Your task to perform on an android device: find which apps use the phone's location Image 0: 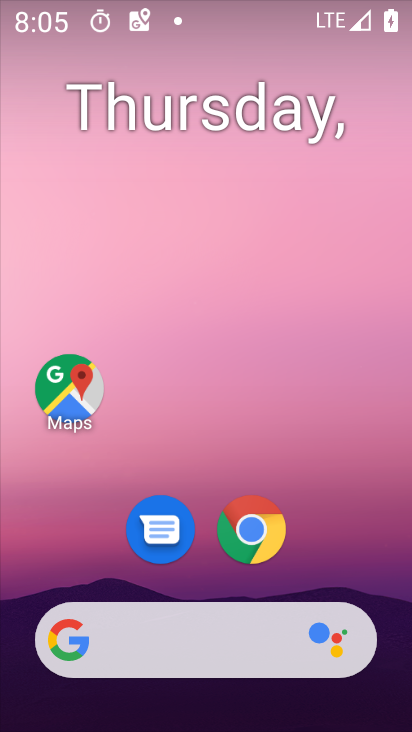
Step 0: drag from (378, 571) to (373, 176)
Your task to perform on an android device: find which apps use the phone's location Image 1: 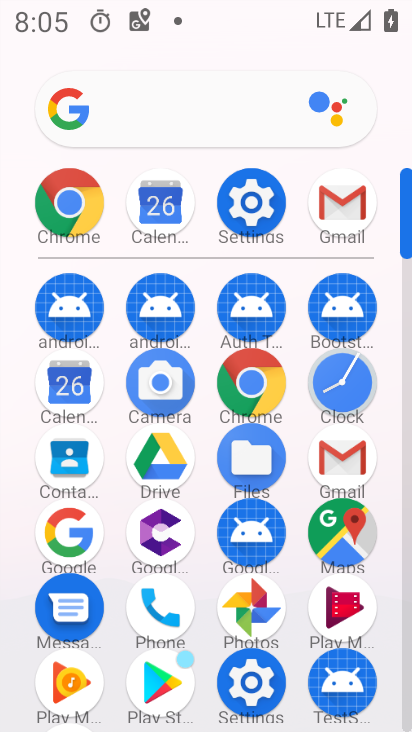
Step 1: click (255, 216)
Your task to perform on an android device: find which apps use the phone's location Image 2: 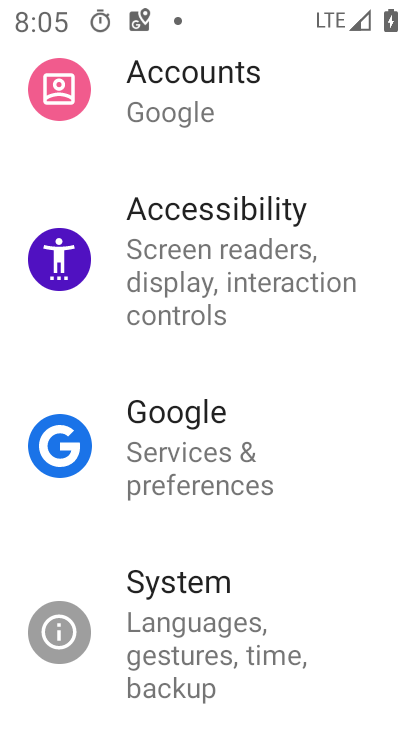
Step 2: drag from (373, 175) to (373, 267)
Your task to perform on an android device: find which apps use the phone's location Image 3: 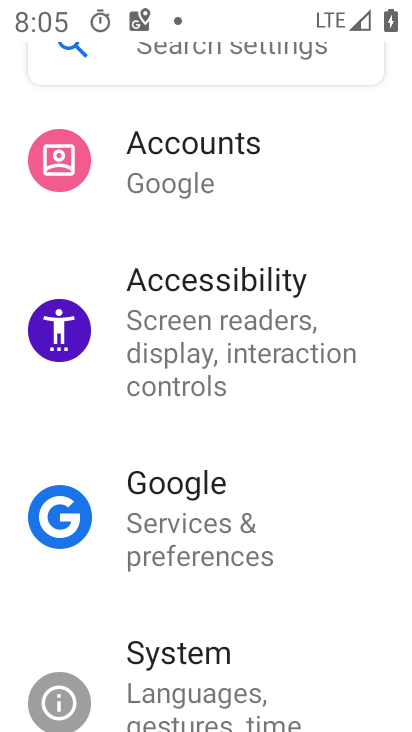
Step 3: drag from (373, 185) to (374, 306)
Your task to perform on an android device: find which apps use the phone's location Image 4: 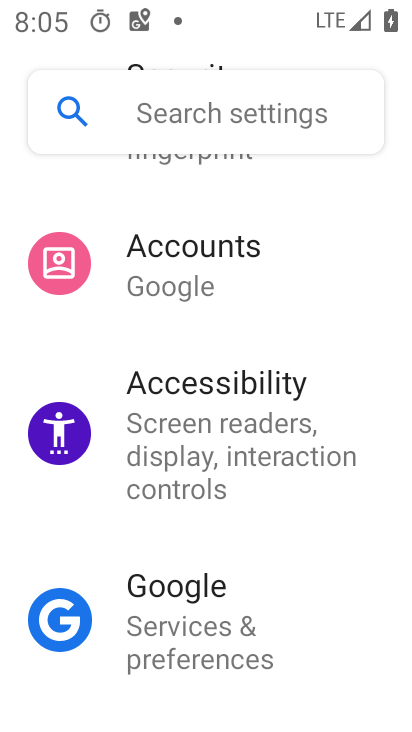
Step 4: drag from (355, 190) to (358, 302)
Your task to perform on an android device: find which apps use the phone's location Image 5: 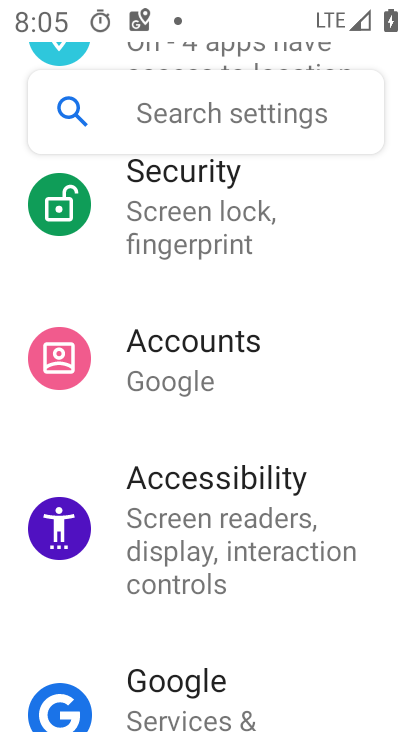
Step 5: drag from (347, 174) to (347, 294)
Your task to perform on an android device: find which apps use the phone's location Image 6: 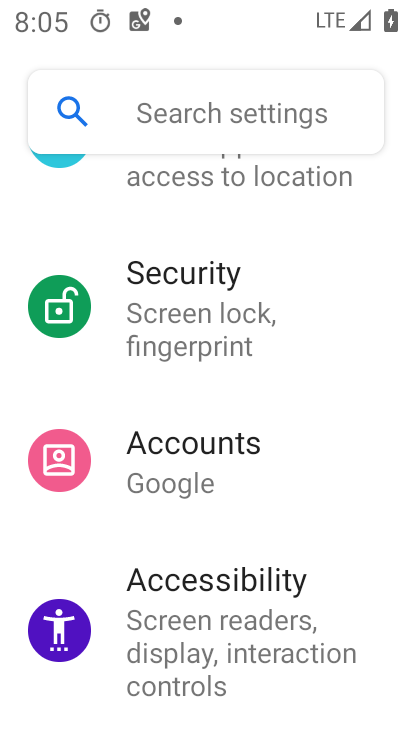
Step 6: drag from (367, 166) to (365, 283)
Your task to perform on an android device: find which apps use the phone's location Image 7: 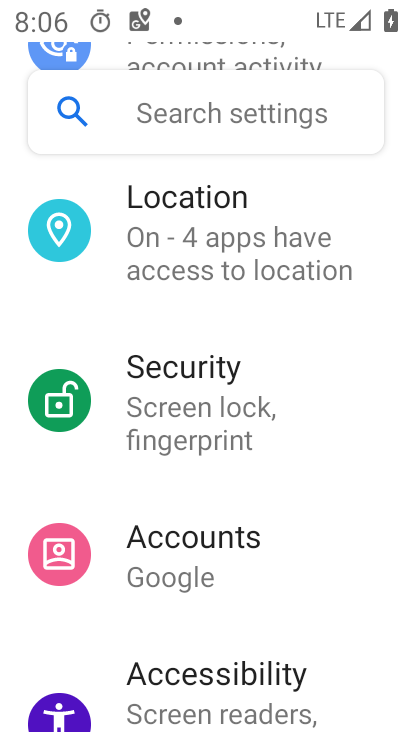
Step 7: drag from (366, 186) to (371, 278)
Your task to perform on an android device: find which apps use the phone's location Image 8: 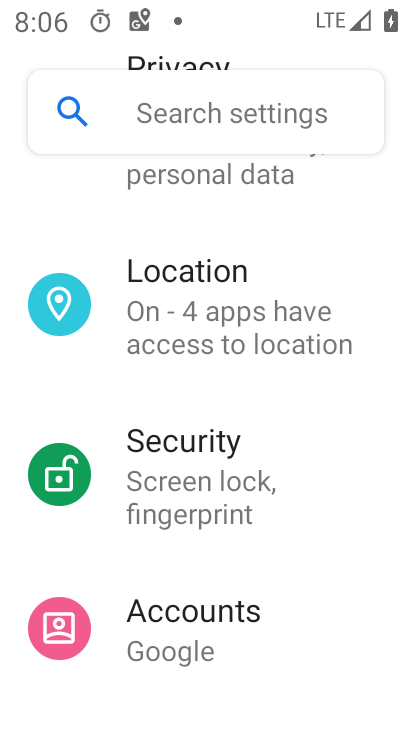
Step 8: drag from (367, 213) to (355, 334)
Your task to perform on an android device: find which apps use the phone's location Image 9: 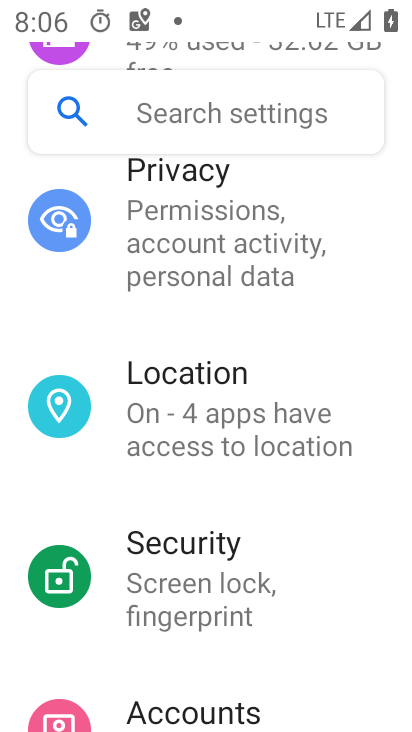
Step 9: click (321, 408)
Your task to perform on an android device: find which apps use the phone's location Image 10: 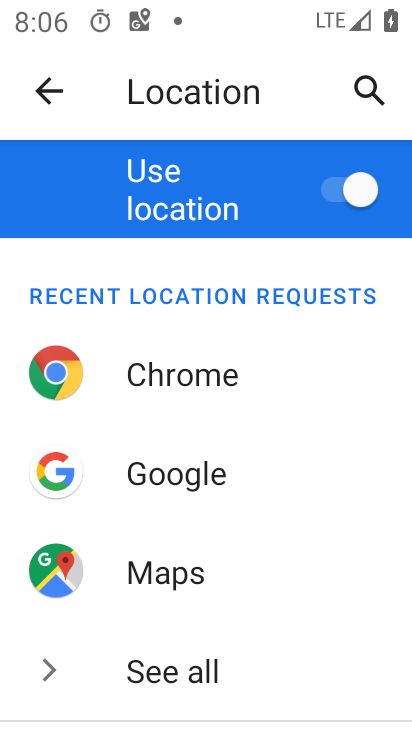
Step 10: drag from (316, 438) to (318, 337)
Your task to perform on an android device: find which apps use the phone's location Image 11: 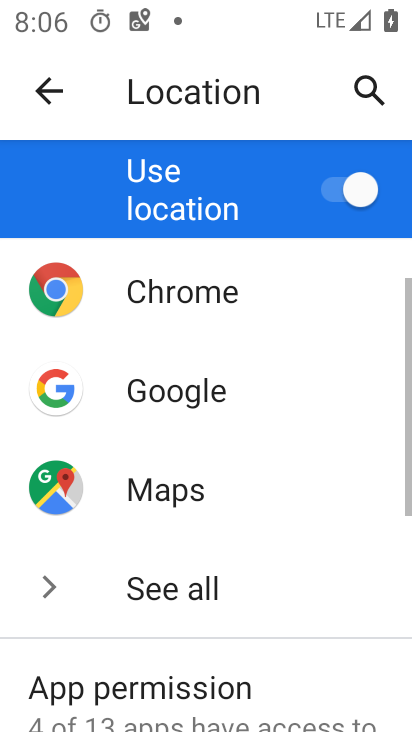
Step 11: drag from (307, 486) to (323, 327)
Your task to perform on an android device: find which apps use the phone's location Image 12: 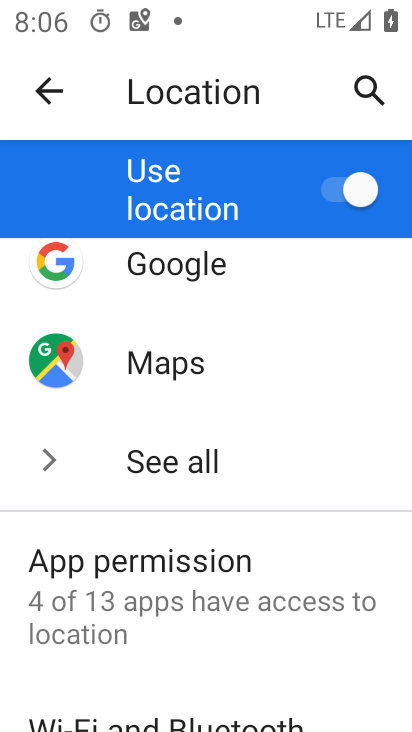
Step 12: drag from (306, 539) to (306, 417)
Your task to perform on an android device: find which apps use the phone's location Image 13: 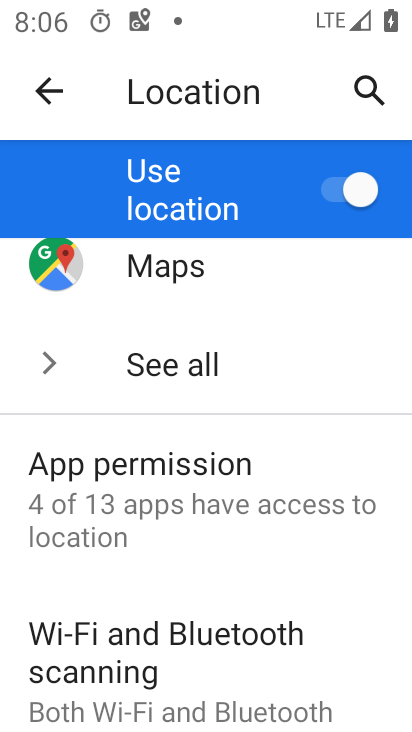
Step 13: drag from (298, 561) to (296, 328)
Your task to perform on an android device: find which apps use the phone's location Image 14: 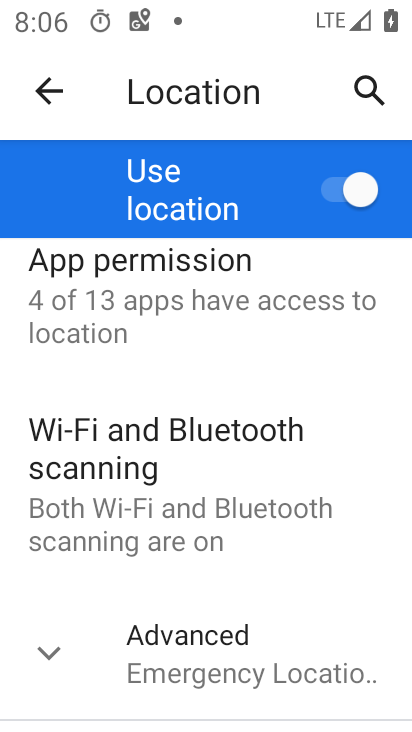
Step 14: click (264, 281)
Your task to perform on an android device: find which apps use the phone's location Image 15: 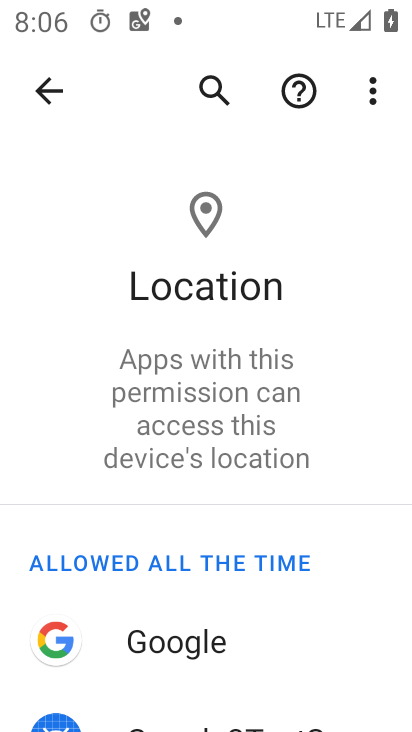
Step 15: drag from (349, 482) to (377, 330)
Your task to perform on an android device: find which apps use the phone's location Image 16: 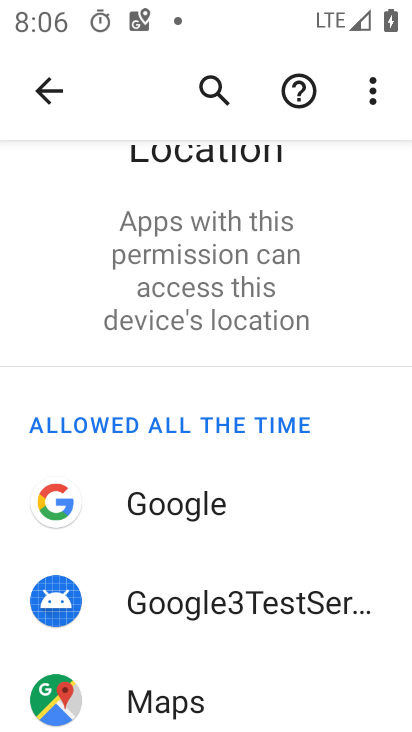
Step 16: drag from (352, 492) to (365, 320)
Your task to perform on an android device: find which apps use the phone's location Image 17: 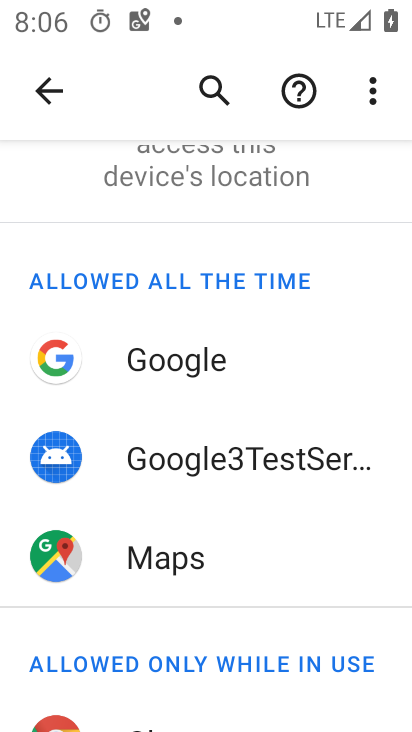
Step 17: drag from (330, 490) to (349, 371)
Your task to perform on an android device: find which apps use the phone's location Image 18: 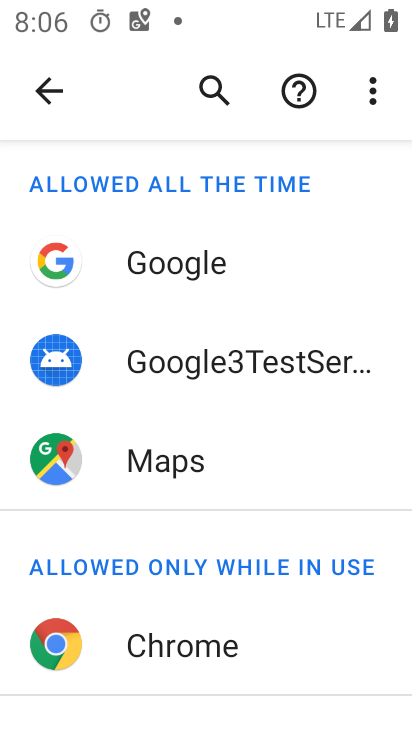
Step 18: drag from (331, 557) to (351, 395)
Your task to perform on an android device: find which apps use the phone's location Image 19: 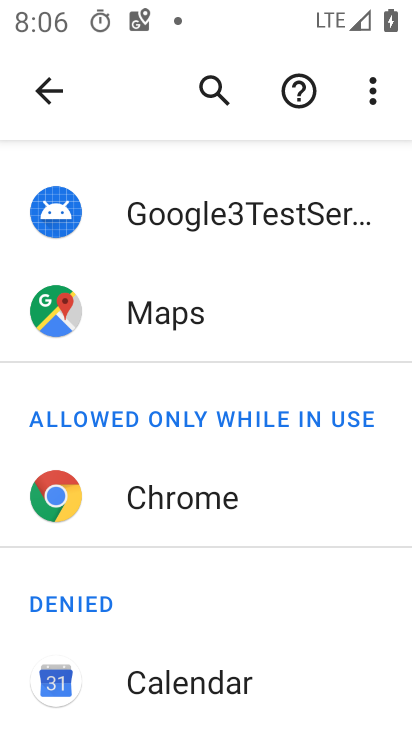
Step 19: drag from (338, 540) to (348, 371)
Your task to perform on an android device: find which apps use the phone's location Image 20: 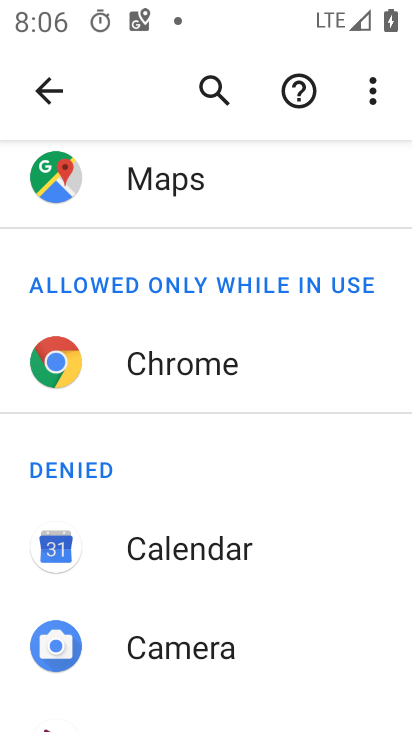
Step 20: drag from (320, 528) to (328, 389)
Your task to perform on an android device: find which apps use the phone's location Image 21: 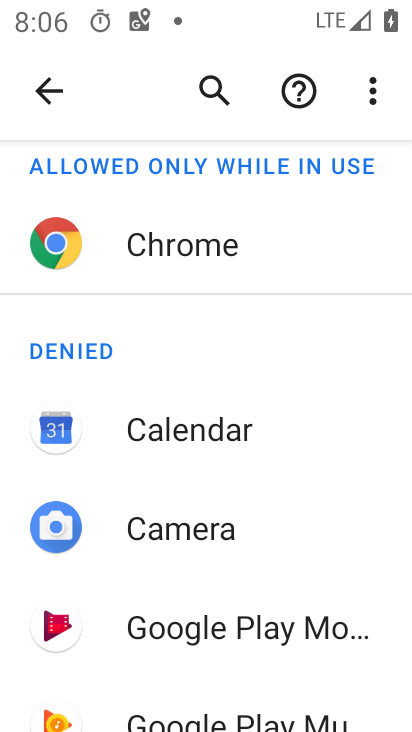
Step 21: drag from (317, 553) to (329, 396)
Your task to perform on an android device: find which apps use the phone's location Image 22: 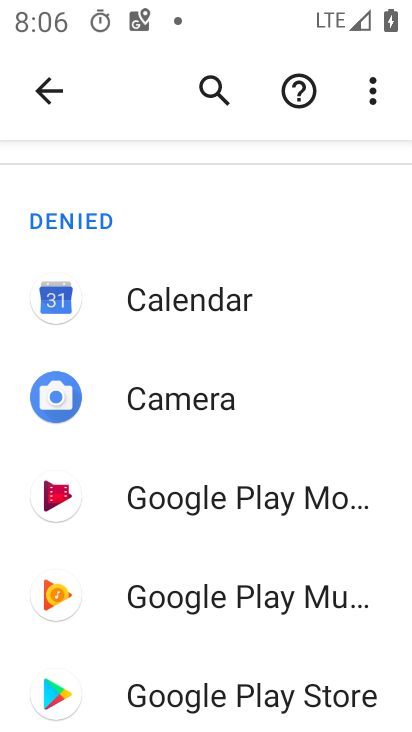
Step 22: drag from (308, 573) to (314, 401)
Your task to perform on an android device: find which apps use the phone's location Image 23: 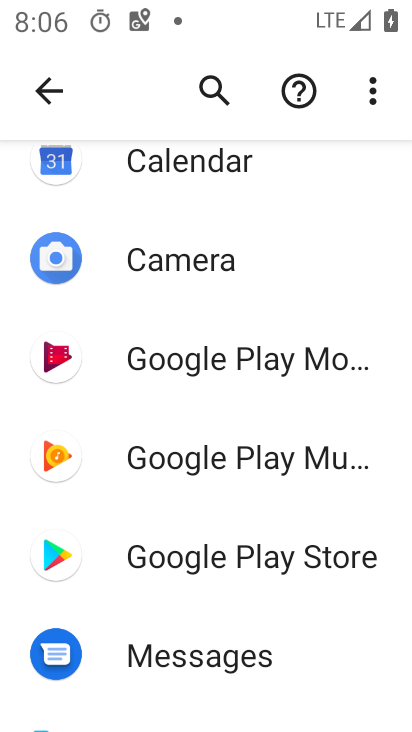
Step 23: drag from (311, 608) to (311, 388)
Your task to perform on an android device: find which apps use the phone's location Image 24: 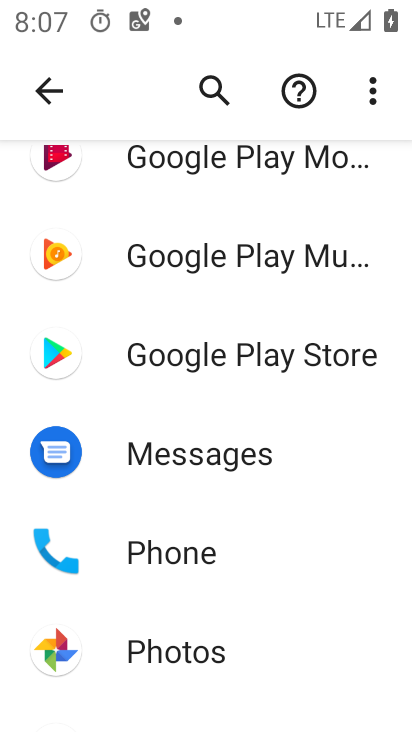
Step 24: drag from (287, 608) to (316, 406)
Your task to perform on an android device: find which apps use the phone's location Image 25: 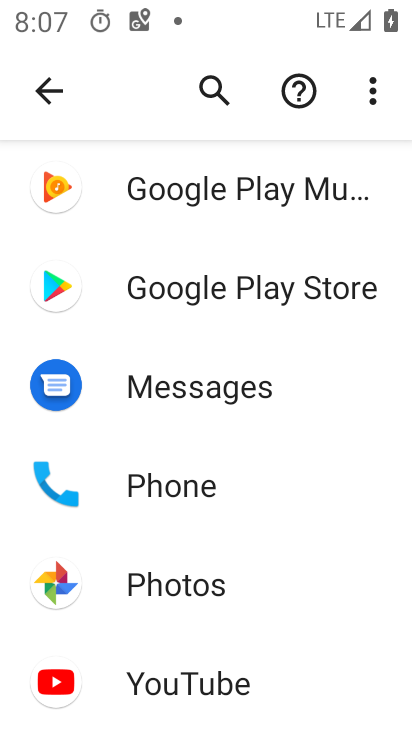
Step 25: click (212, 598)
Your task to perform on an android device: find which apps use the phone's location Image 26: 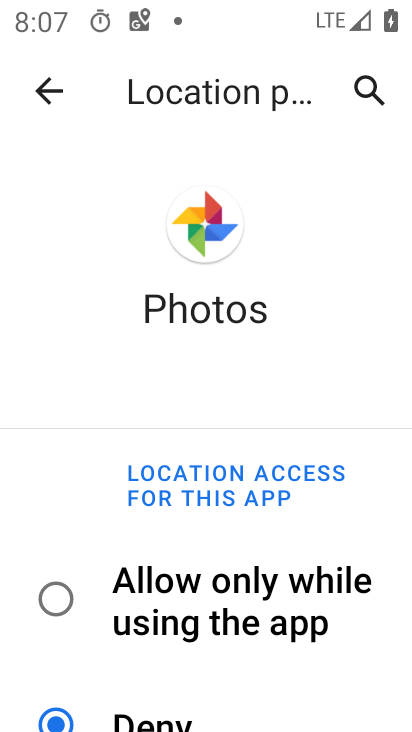
Step 26: click (55, 592)
Your task to perform on an android device: find which apps use the phone's location Image 27: 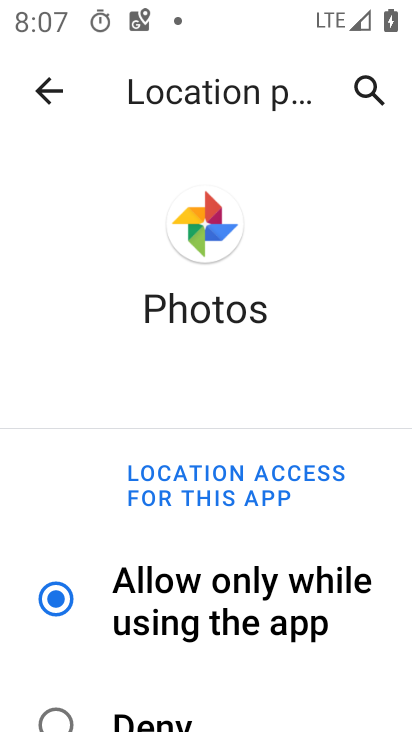
Step 27: task complete